Your task to perform on an android device: Open Android settings Image 0: 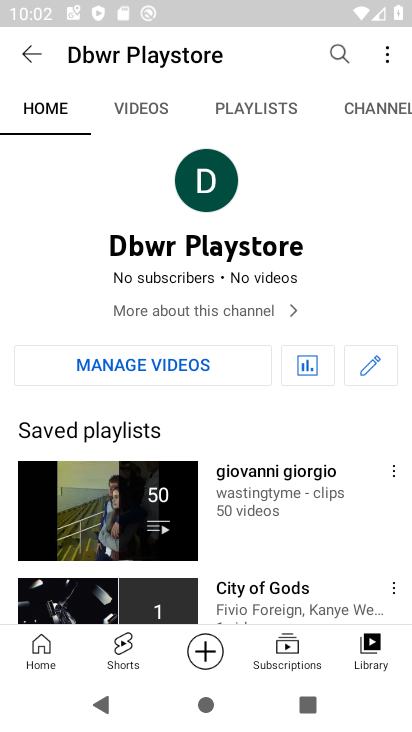
Step 0: press home button
Your task to perform on an android device: Open Android settings Image 1: 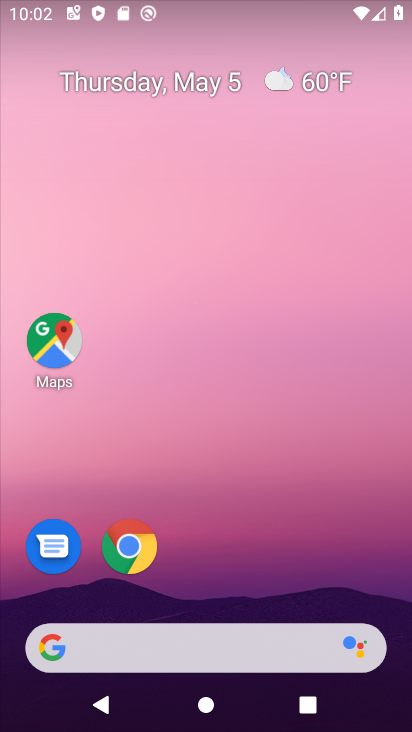
Step 1: drag from (256, 592) to (212, 323)
Your task to perform on an android device: Open Android settings Image 2: 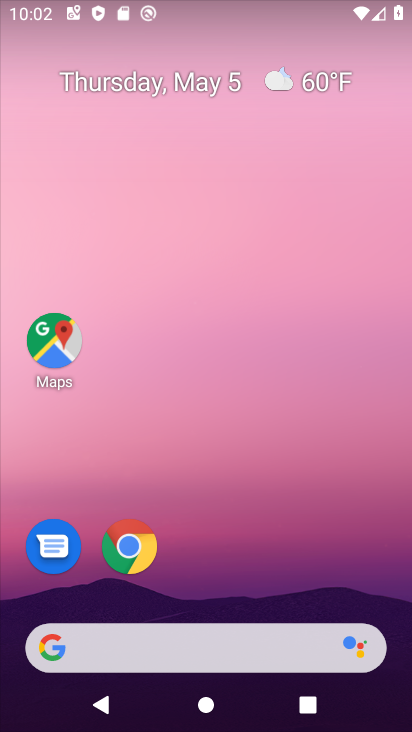
Step 2: drag from (255, 580) to (236, 242)
Your task to perform on an android device: Open Android settings Image 3: 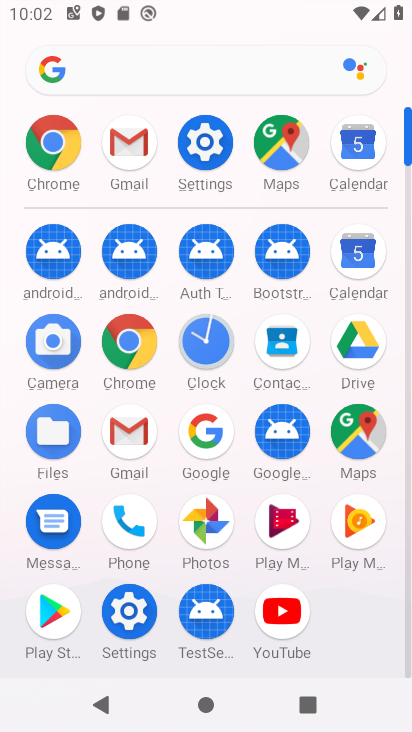
Step 3: click (120, 605)
Your task to perform on an android device: Open Android settings Image 4: 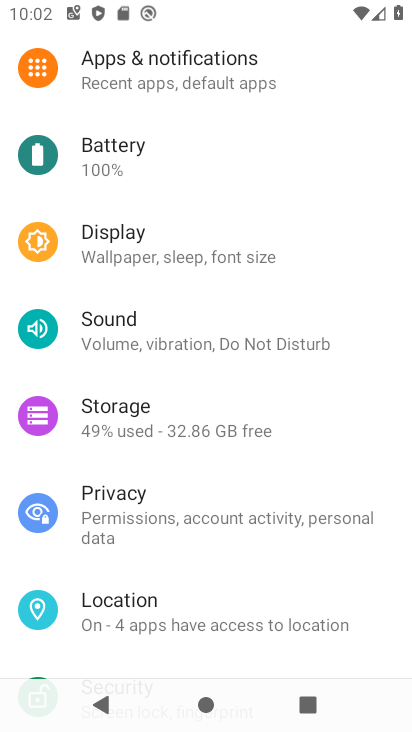
Step 4: drag from (112, 603) to (93, 423)
Your task to perform on an android device: Open Android settings Image 5: 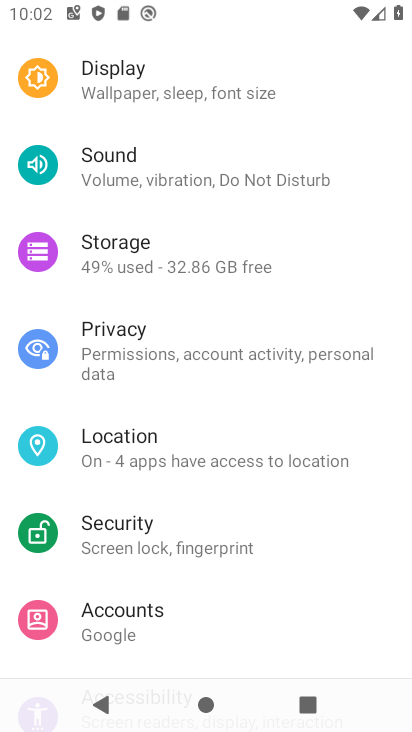
Step 5: drag from (71, 591) to (73, 504)
Your task to perform on an android device: Open Android settings Image 6: 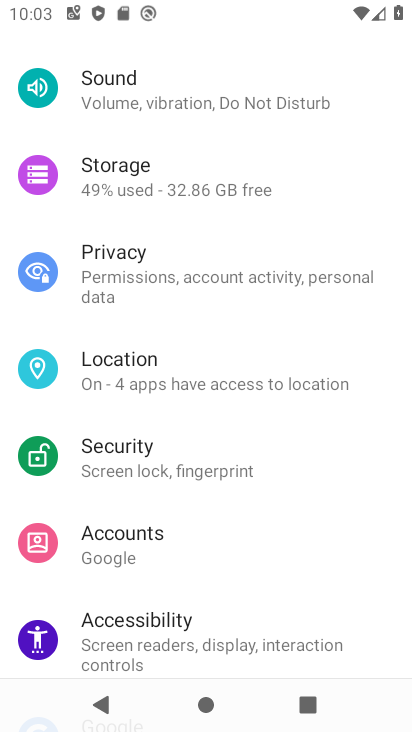
Step 6: drag from (71, 618) to (99, 514)
Your task to perform on an android device: Open Android settings Image 7: 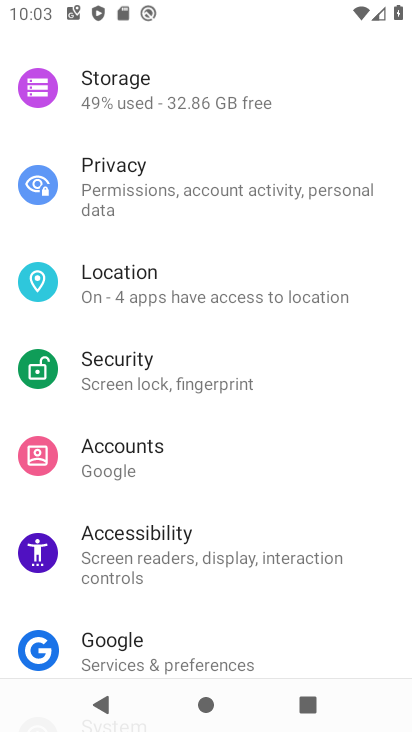
Step 7: drag from (152, 652) to (143, 517)
Your task to perform on an android device: Open Android settings Image 8: 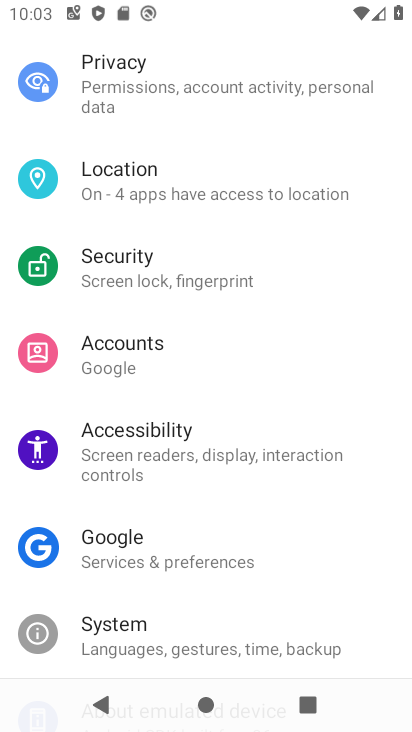
Step 8: click (138, 648)
Your task to perform on an android device: Open Android settings Image 9: 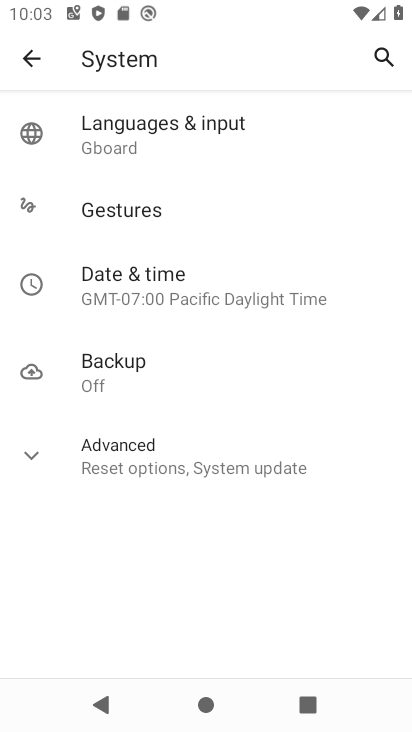
Step 9: task complete